Your task to perform on an android device: Set an alarm for 6pm Image 0: 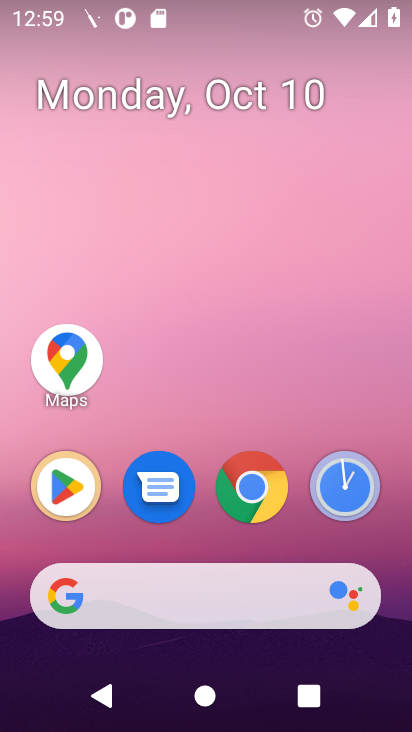
Step 0: click (265, 498)
Your task to perform on an android device: Set an alarm for 6pm Image 1: 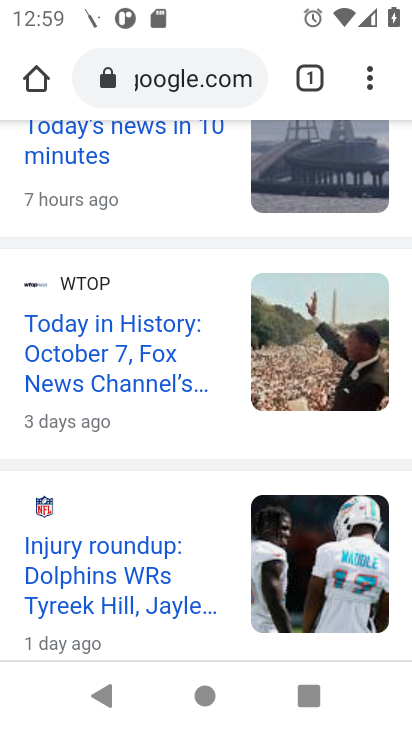
Step 1: press home button
Your task to perform on an android device: Set an alarm for 6pm Image 2: 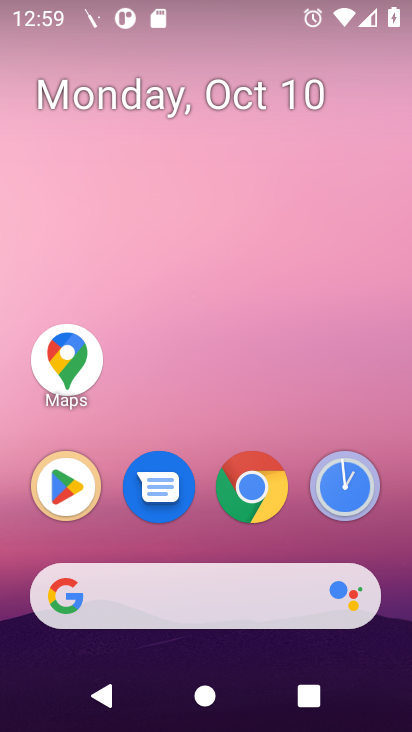
Step 2: drag from (244, 723) to (231, 241)
Your task to perform on an android device: Set an alarm for 6pm Image 3: 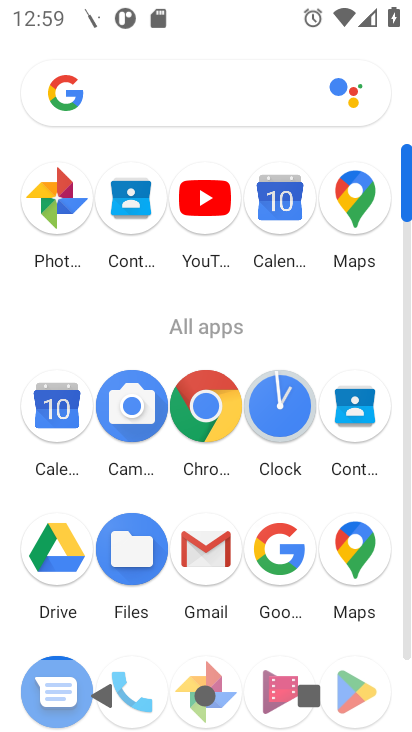
Step 3: click (291, 422)
Your task to perform on an android device: Set an alarm for 6pm Image 4: 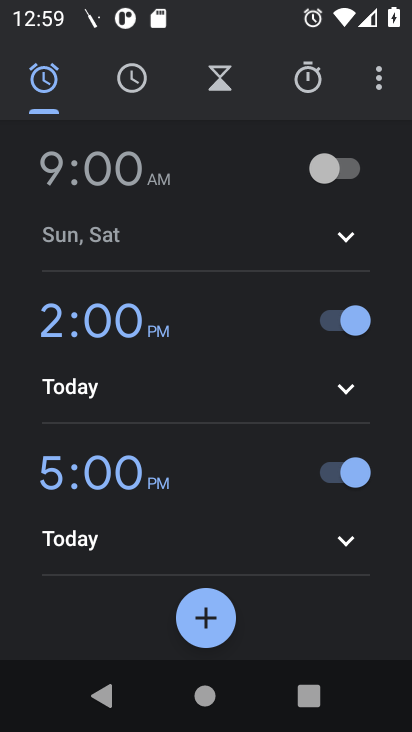
Step 4: click (209, 626)
Your task to perform on an android device: Set an alarm for 6pm Image 5: 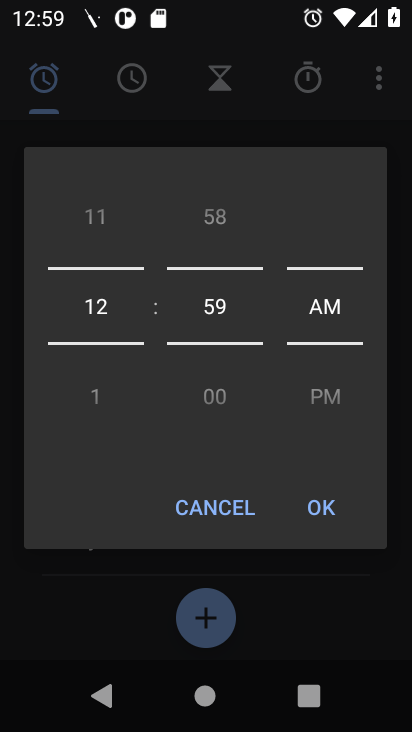
Step 5: click (99, 311)
Your task to perform on an android device: Set an alarm for 6pm Image 6: 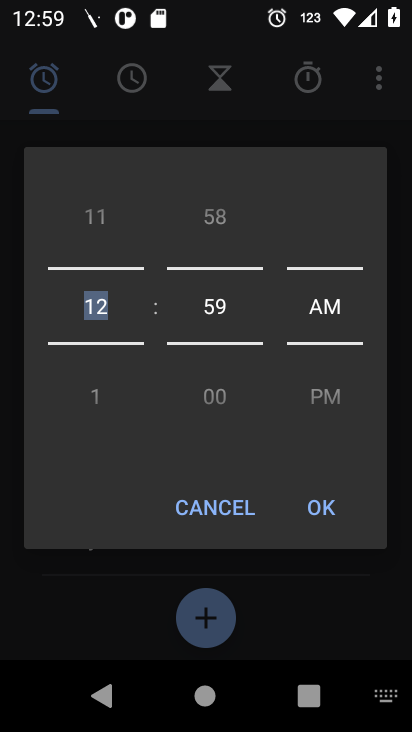
Step 6: type "6"
Your task to perform on an android device: Set an alarm for 6pm Image 7: 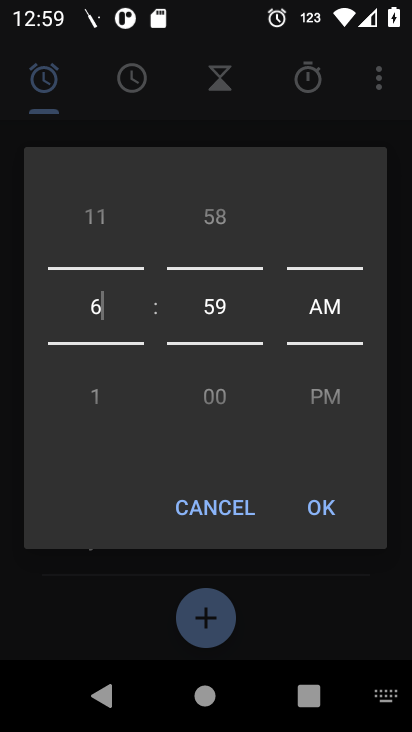
Step 7: type ""
Your task to perform on an android device: Set an alarm for 6pm Image 8: 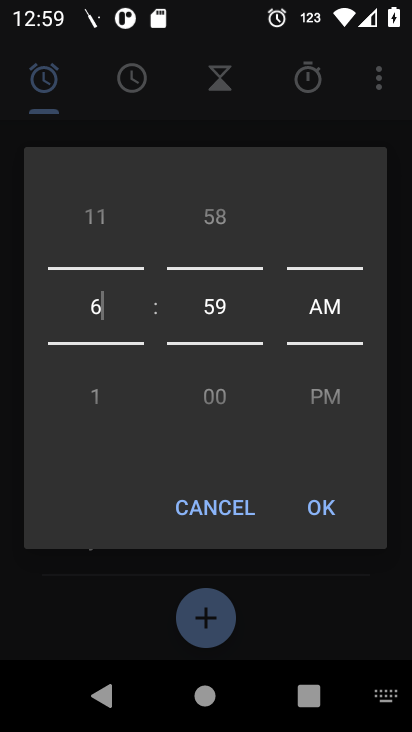
Step 8: click (207, 317)
Your task to perform on an android device: Set an alarm for 6pm Image 9: 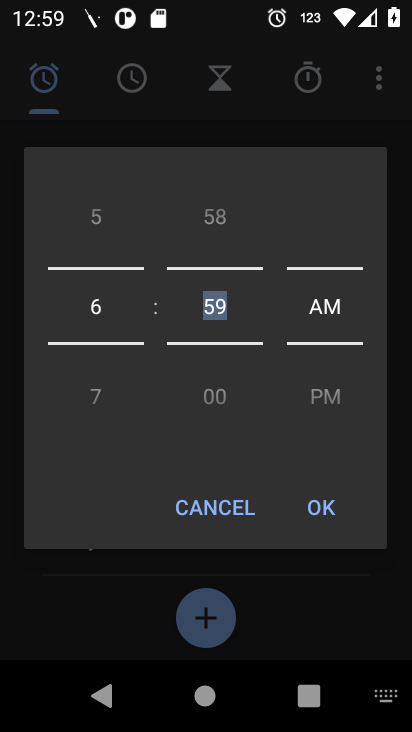
Step 9: type "00"
Your task to perform on an android device: Set an alarm for 6pm Image 10: 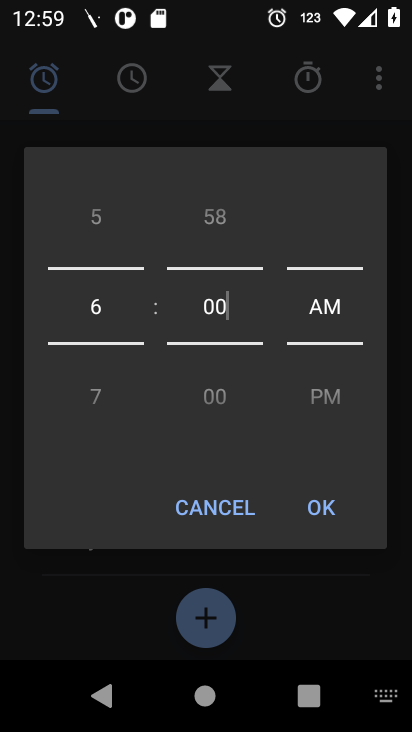
Step 10: type ""
Your task to perform on an android device: Set an alarm for 6pm Image 11: 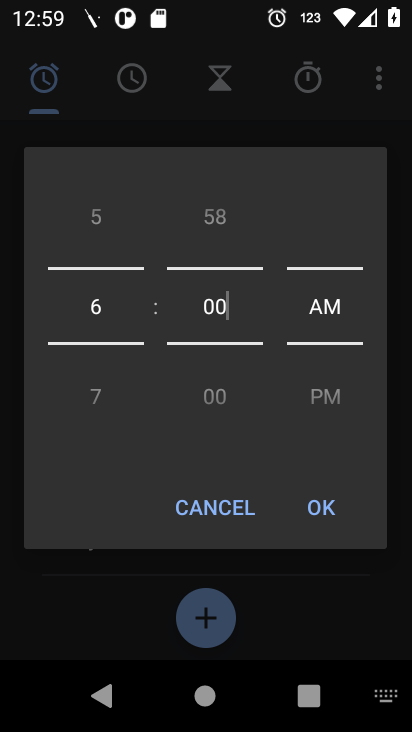
Step 11: drag from (324, 397) to (329, 271)
Your task to perform on an android device: Set an alarm for 6pm Image 12: 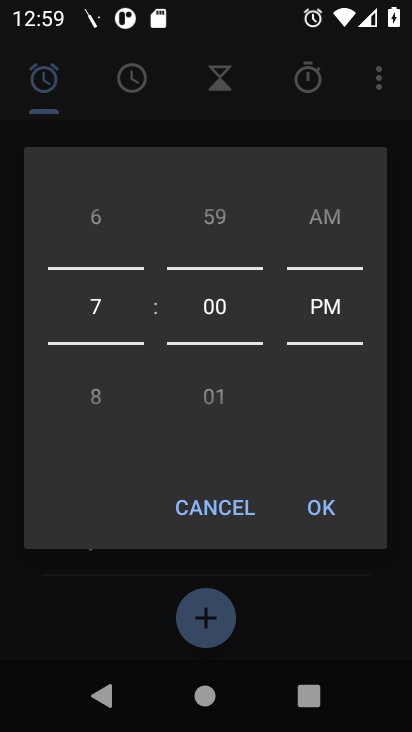
Step 12: drag from (102, 314) to (91, 393)
Your task to perform on an android device: Set an alarm for 6pm Image 13: 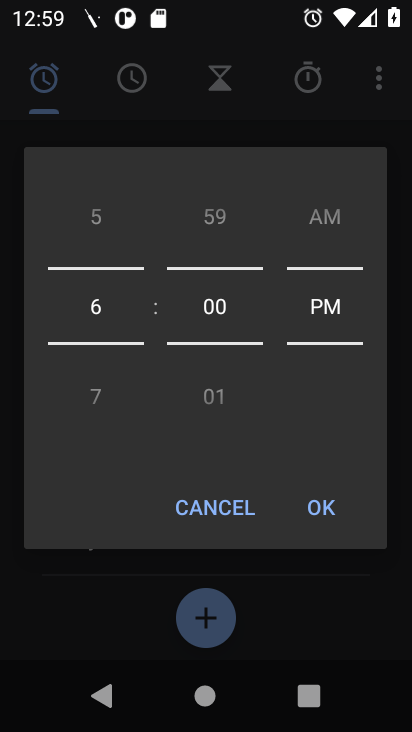
Step 13: click (335, 515)
Your task to perform on an android device: Set an alarm for 6pm Image 14: 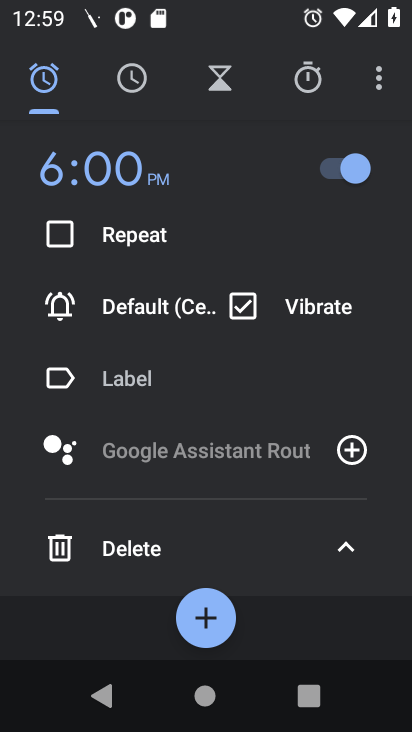
Step 14: click (350, 550)
Your task to perform on an android device: Set an alarm for 6pm Image 15: 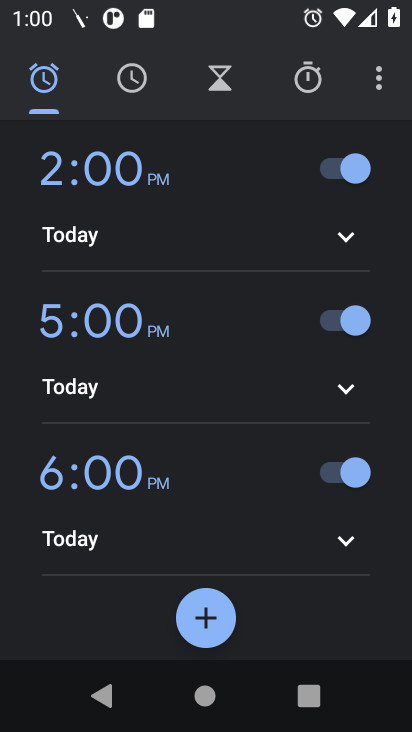
Step 15: task complete